Your task to perform on an android device: Find coffee shops on Maps Image 0: 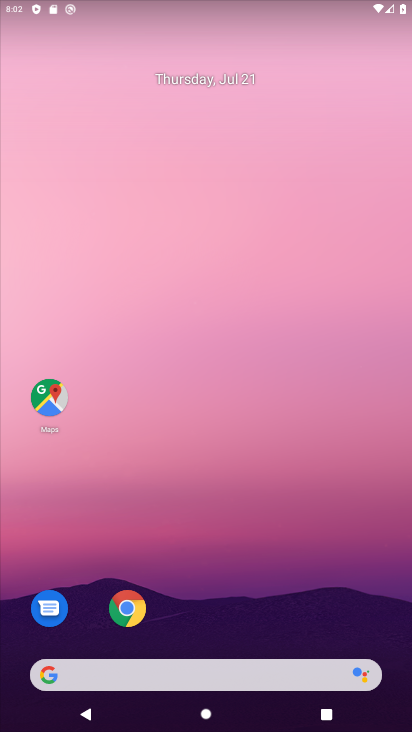
Step 0: press home button
Your task to perform on an android device: Find coffee shops on Maps Image 1: 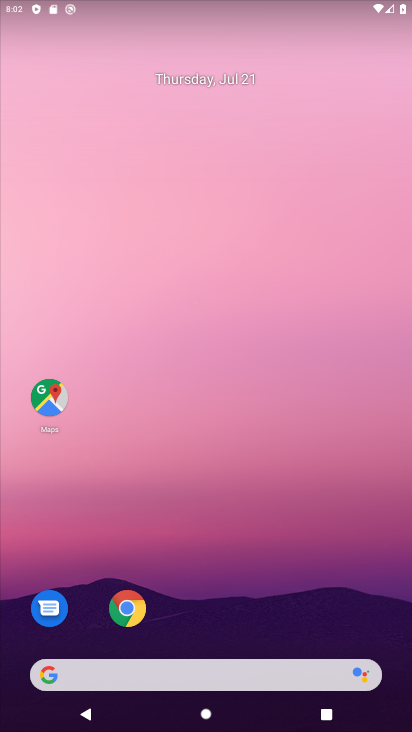
Step 1: click (49, 389)
Your task to perform on an android device: Find coffee shops on Maps Image 2: 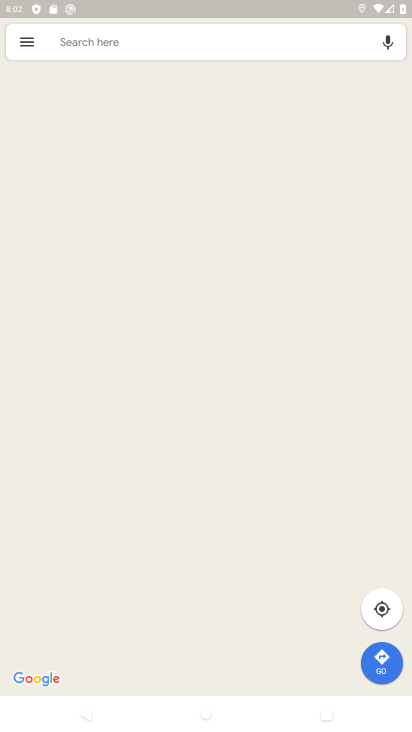
Step 2: click (96, 39)
Your task to perform on an android device: Find coffee shops on Maps Image 3: 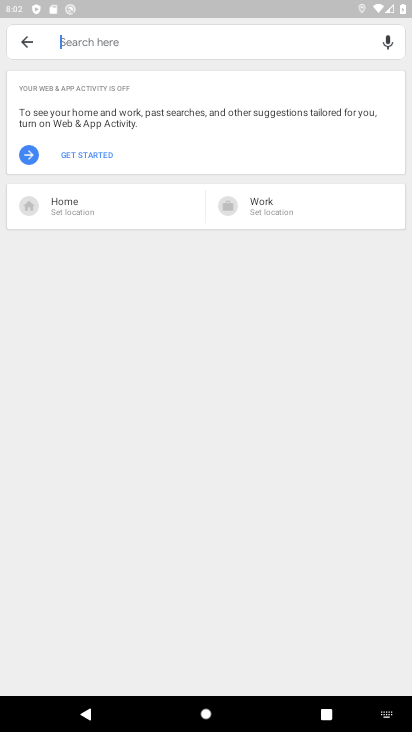
Step 3: type "coffee"
Your task to perform on an android device: Find coffee shops on Maps Image 4: 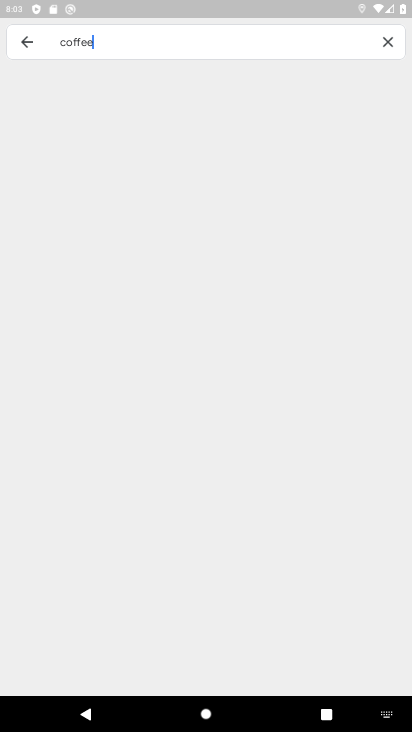
Step 4: click (386, 39)
Your task to perform on an android device: Find coffee shops on Maps Image 5: 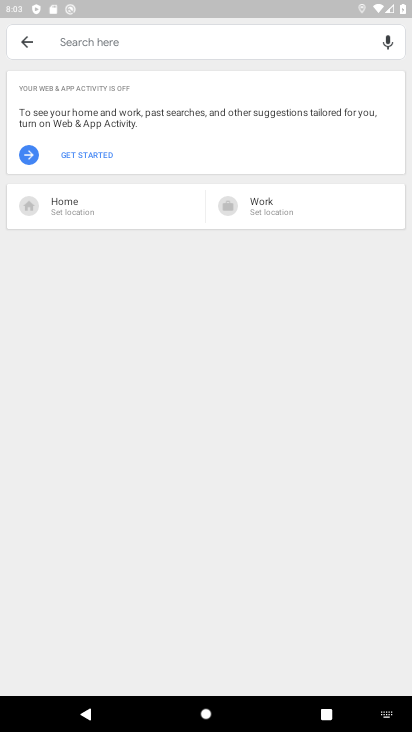
Step 5: type "coffee"
Your task to perform on an android device: Find coffee shops on Maps Image 6: 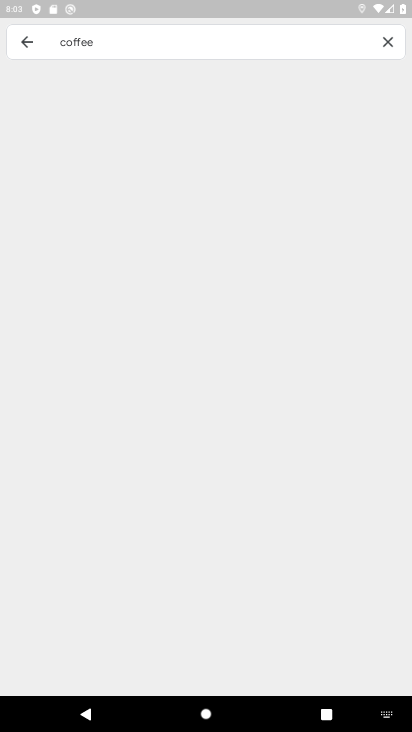
Step 6: task complete